Your task to perform on an android device: turn on improve location accuracy Image 0: 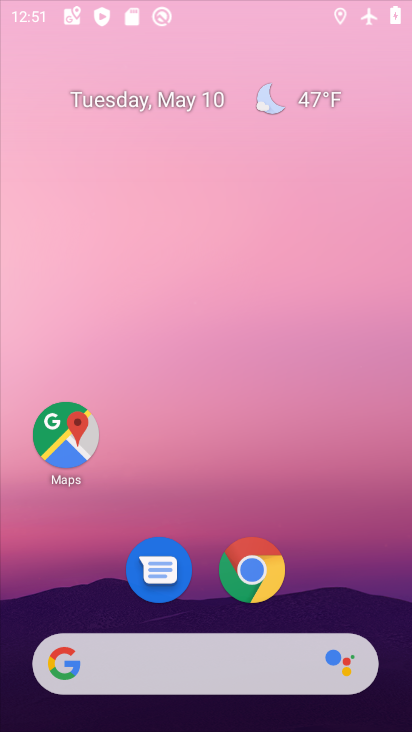
Step 0: drag from (197, 562) to (208, 178)
Your task to perform on an android device: turn on improve location accuracy Image 1: 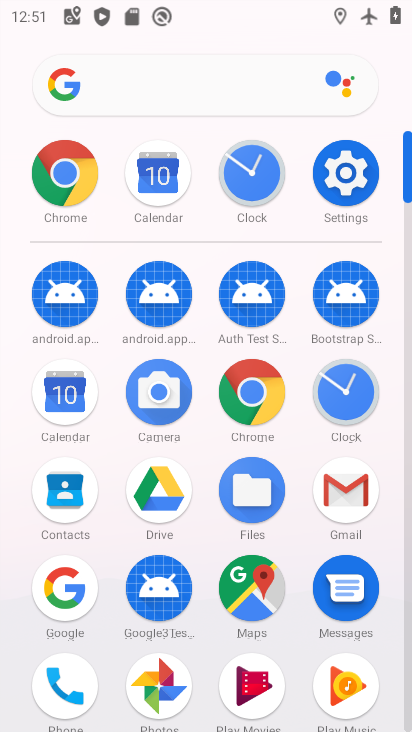
Step 1: drag from (199, 654) to (210, 301)
Your task to perform on an android device: turn on improve location accuracy Image 2: 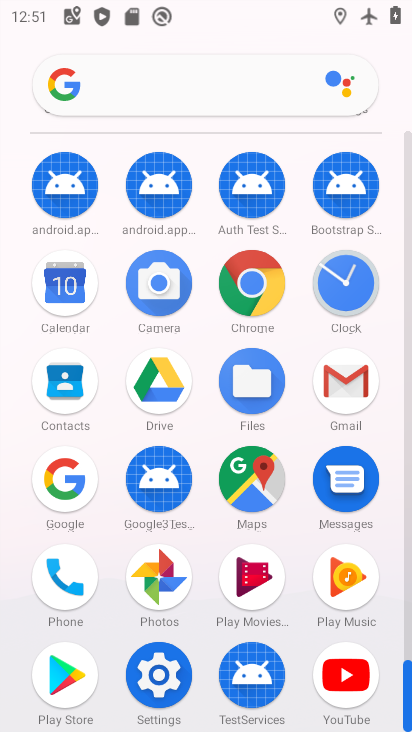
Step 2: click (154, 685)
Your task to perform on an android device: turn on improve location accuracy Image 3: 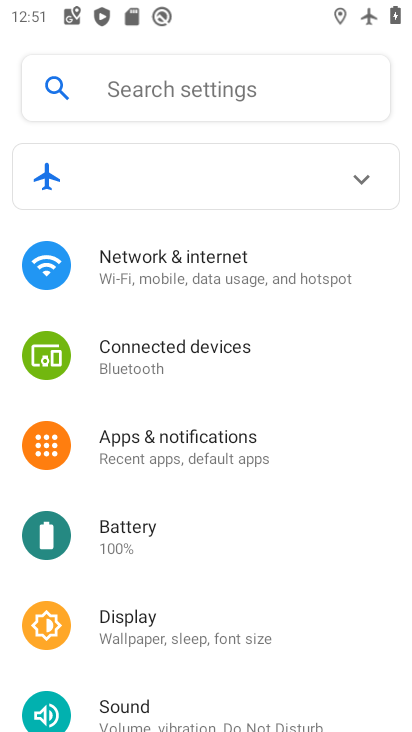
Step 3: drag from (217, 599) to (269, 227)
Your task to perform on an android device: turn on improve location accuracy Image 4: 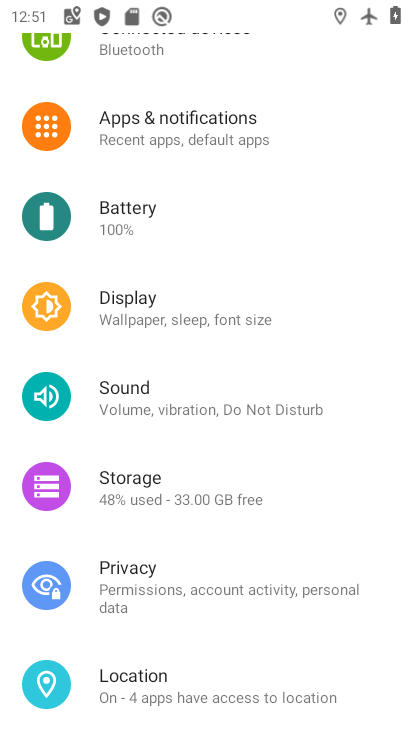
Step 4: drag from (196, 590) to (241, 287)
Your task to perform on an android device: turn on improve location accuracy Image 5: 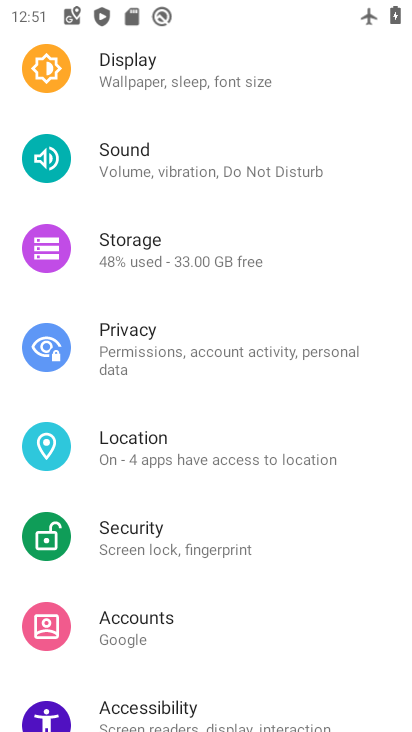
Step 5: drag from (201, 598) to (267, 310)
Your task to perform on an android device: turn on improve location accuracy Image 6: 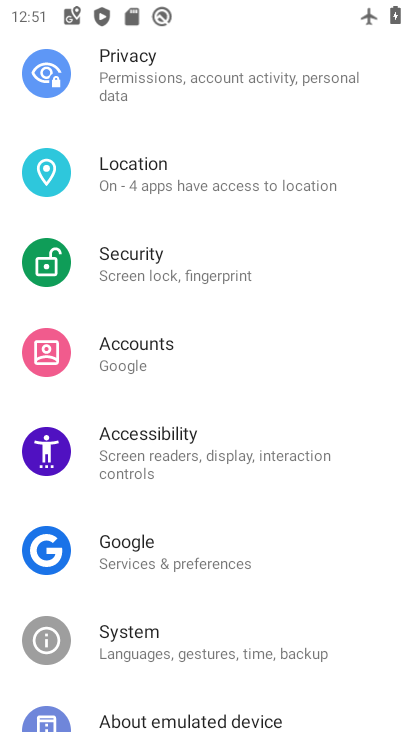
Step 6: drag from (205, 639) to (204, 384)
Your task to perform on an android device: turn on improve location accuracy Image 7: 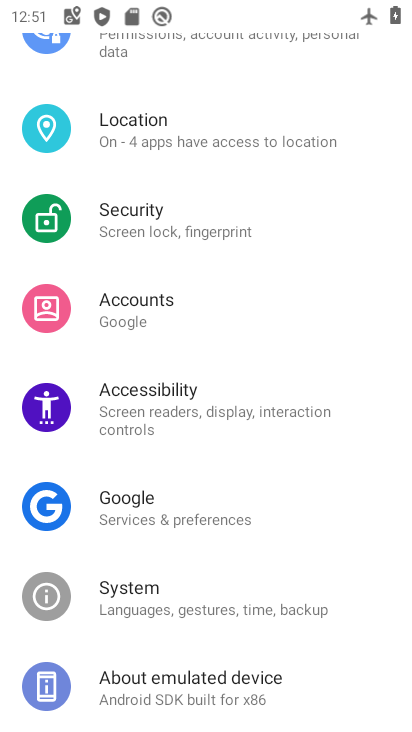
Step 7: drag from (187, 342) to (150, 640)
Your task to perform on an android device: turn on improve location accuracy Image 8: 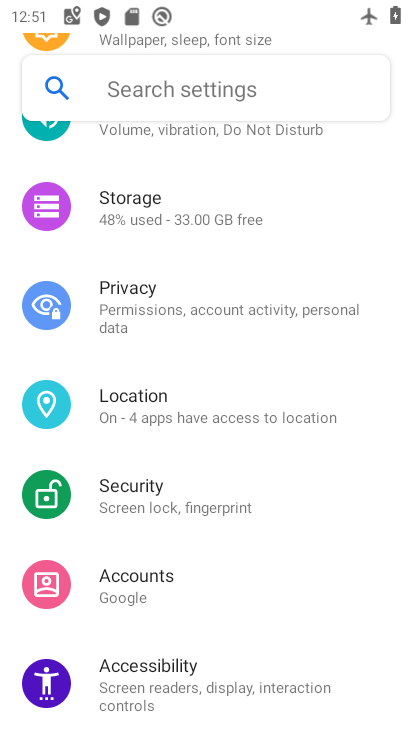
Step 8: click (178, 407)
Your task to perform on an android device: turn on improve location accuracy Image 9: 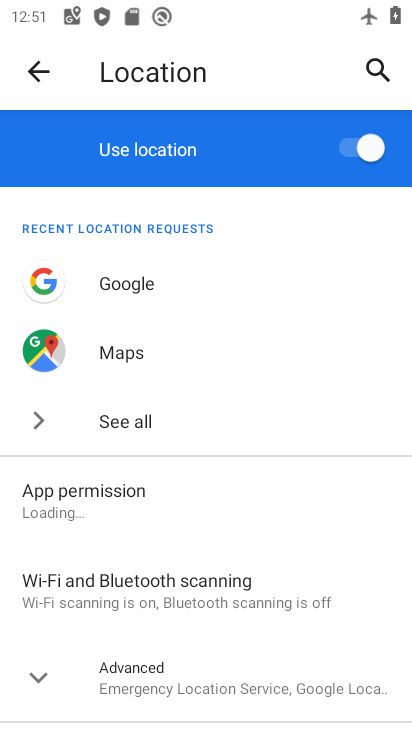
Step 9: click (161, 661)
Your task to perform on an android device: turn on improve location accuracy Image 10: 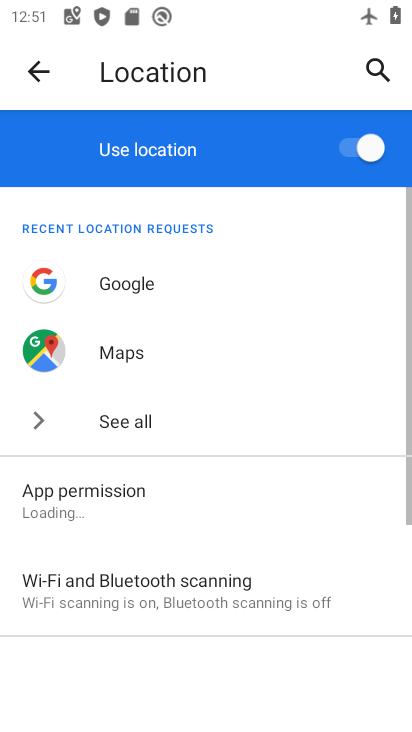
Step 10: drag from (161, 648) to (192, 339)
Your task to perform on an android device: turn on improve location accuracy Image 11: 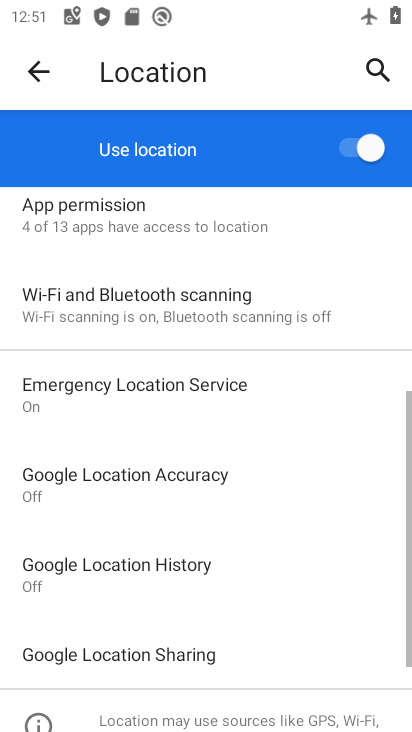
Step 11: drag from (195, 673) to (234, 389)
Your task to perform on an android device: turn on improve location accuracy Image 12: 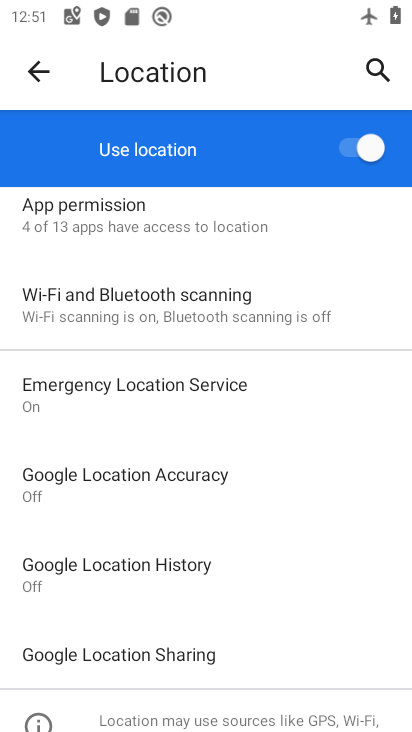
Step 12: click (250, 417)
Your task to perform on an android device: turn on improve location accuracy Image 13: 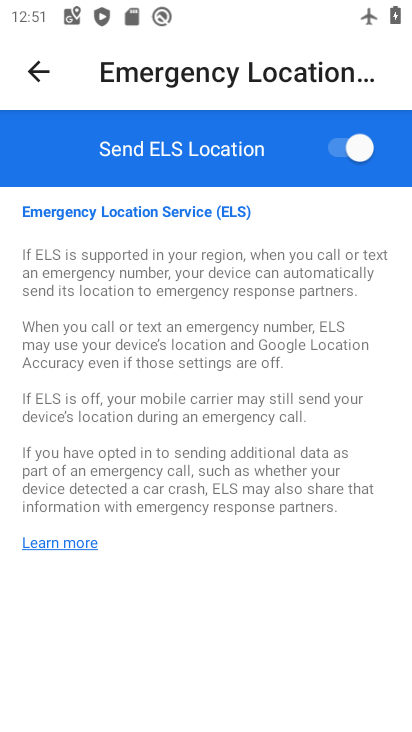
Step 13: press back button
Your task to perform on an android device: turn on improve location accuracy Image 14: 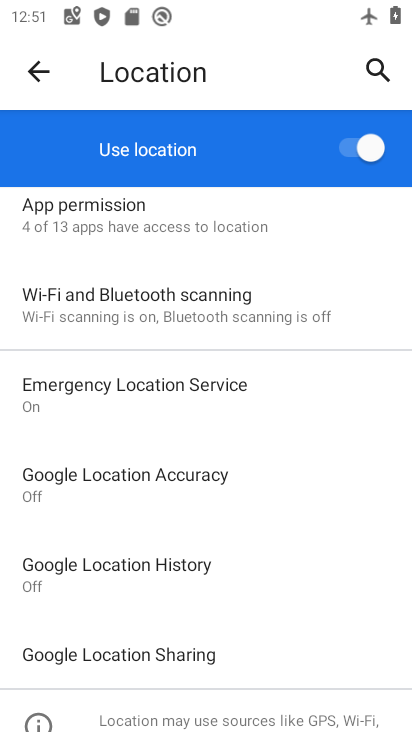
Step 14: click (120, 489)
Your task to perform on an android device: turn on improve location accuracy Image 15: 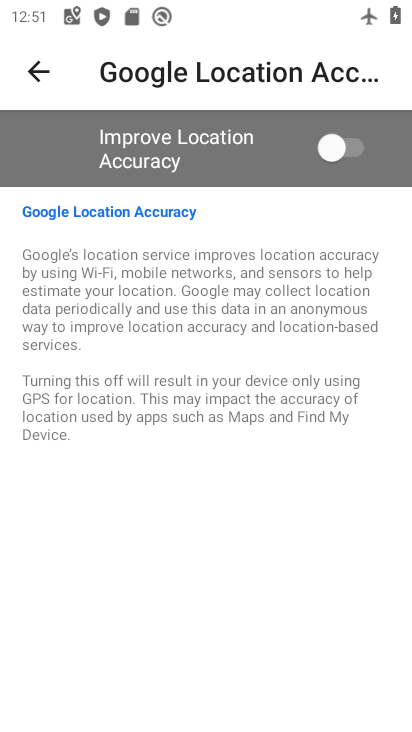
Step 15: click (330, 143)
Your task to perform on an android device: turn on improve location accuracy Image 16: 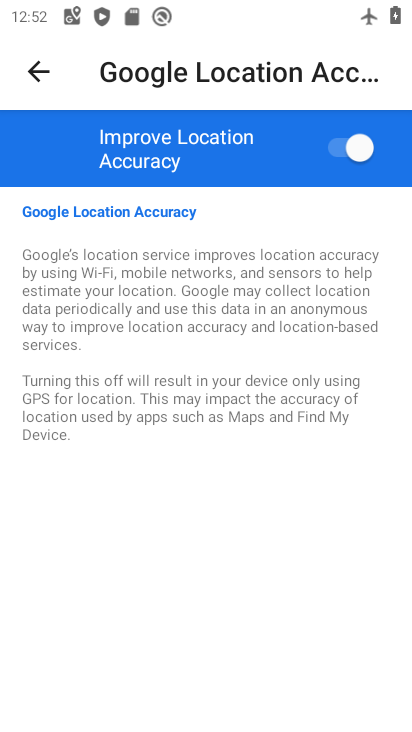
Step 16: task complete